Your task to perform on an android device: change the upload size in google photos Image 0: 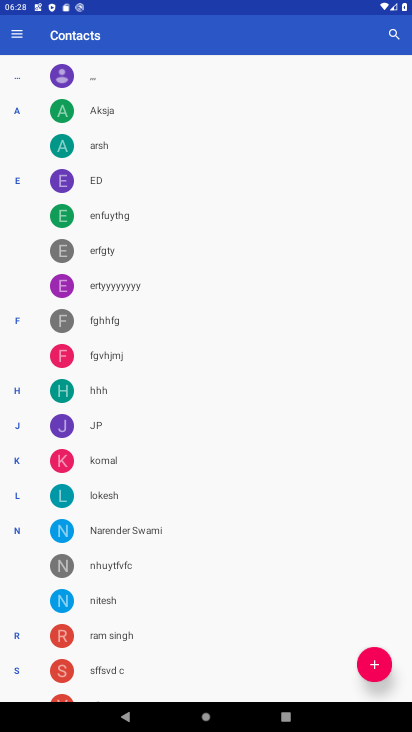
Step 0: press home button
Your task to perform on an android device: change the upload size in google photos Image 1: 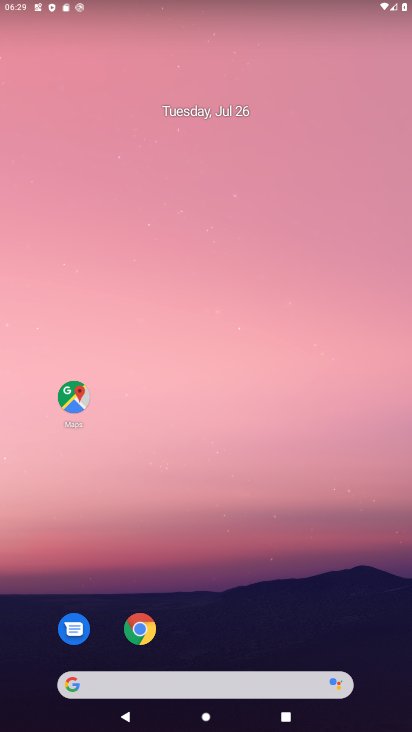
Step 1: drag from (180, 505) to (169, 78)
Your task to perform on an android device: change the upload size in google photos Image 2: 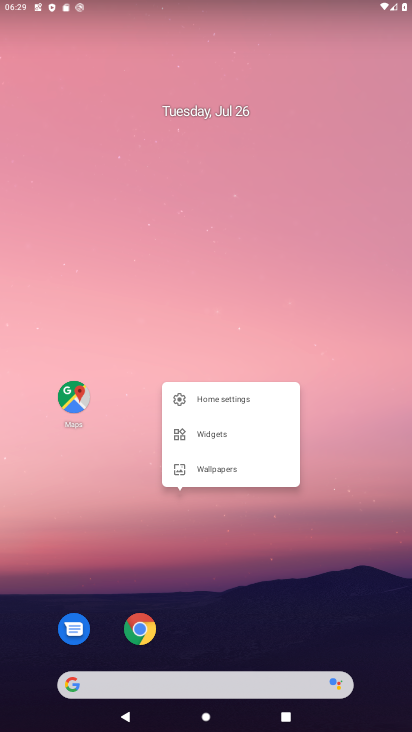
Step 2: click (253, 638)
Your task to perform on an android device: change the upload size in google photos Image 3: 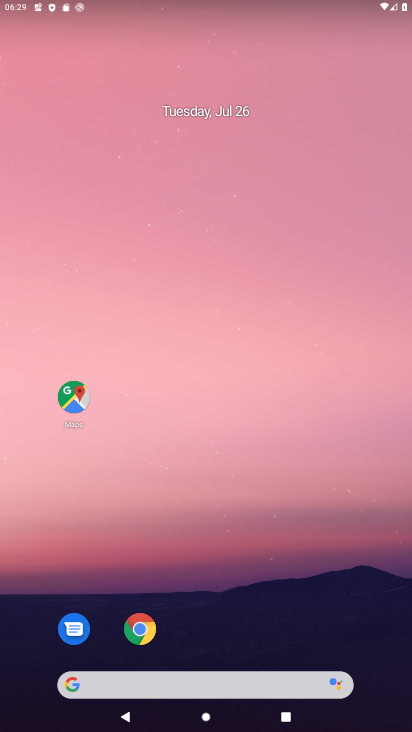
Step 3: drag from (252, 619) to (205, 150)
Your task to perform on an android device: change the upload size in google photos Image 4: 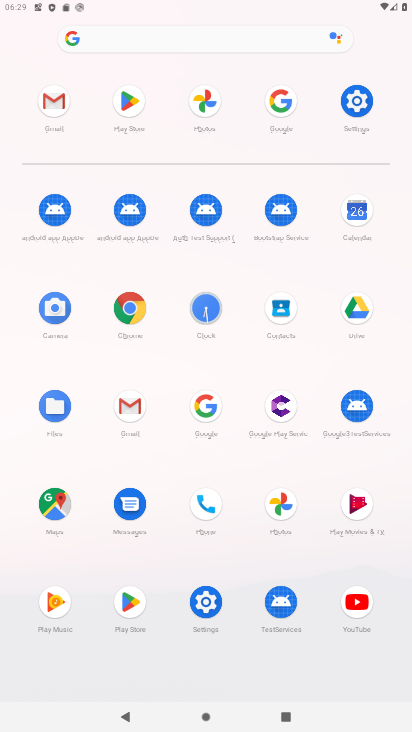
Step 4: click (276, 522)
Your task to perform on an android device: change the upload size in google photos Image 5: 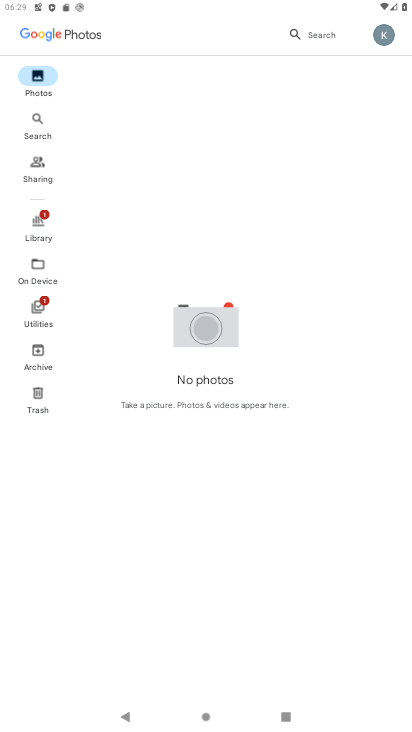
Step 5: click (387, 36)
Your task to perform on an android device: change the upload size in google photos Image 6: 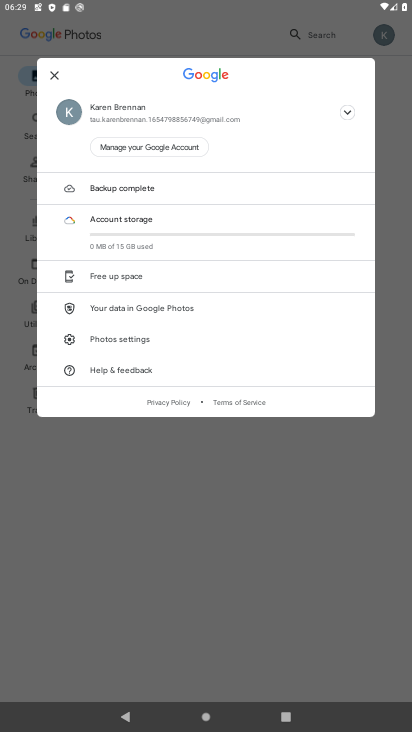
Step 6: click (107, 341)
Your task to perform on an android device: change the upload size in google photos Image 7: 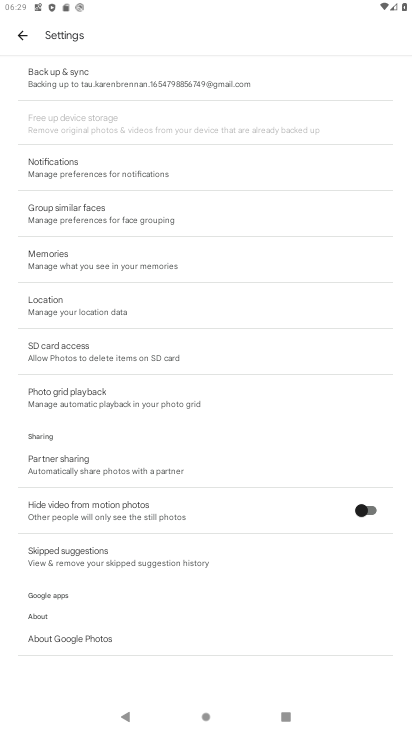
Step 7: click (116, 81)
Your task to perform on an android device: change the upload size in google photos Image 8: 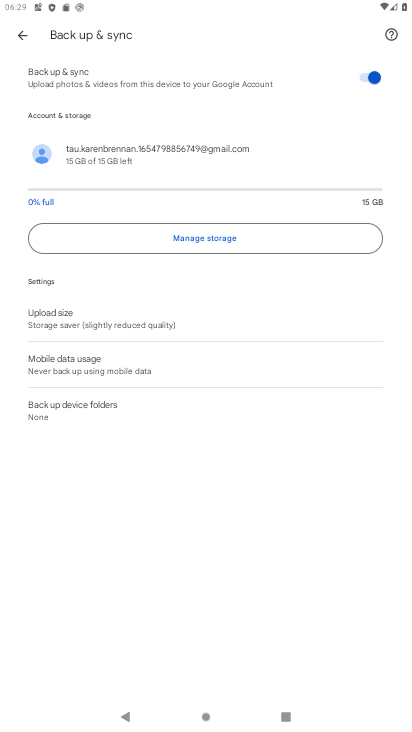
Step 8: click (55, 325)
Your task to perform on an android device: change the upload size in google photos Image 9: 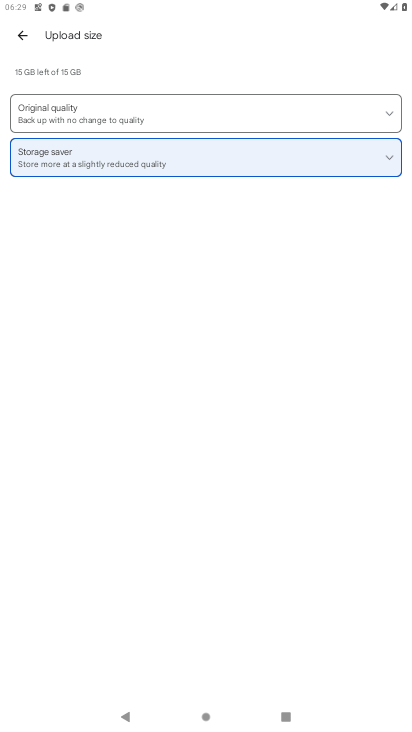
Step 9: click (151, 112)
Your task to perform on an android device: change the upload size in google photos Image 10: 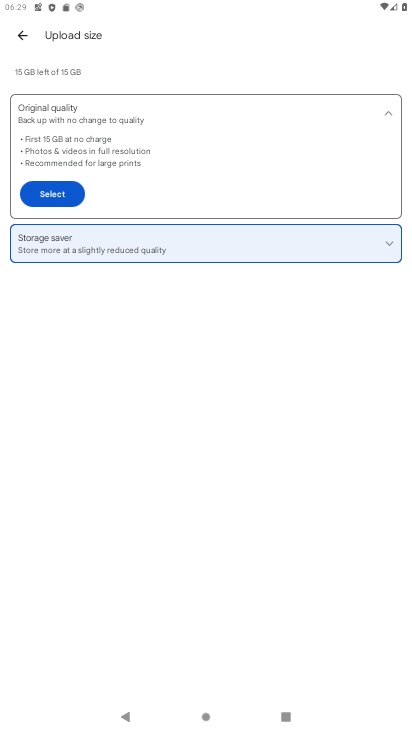
Step 10: click (35, 190)
Your task to perform on an android device: change the upload size in google photos Image 11: 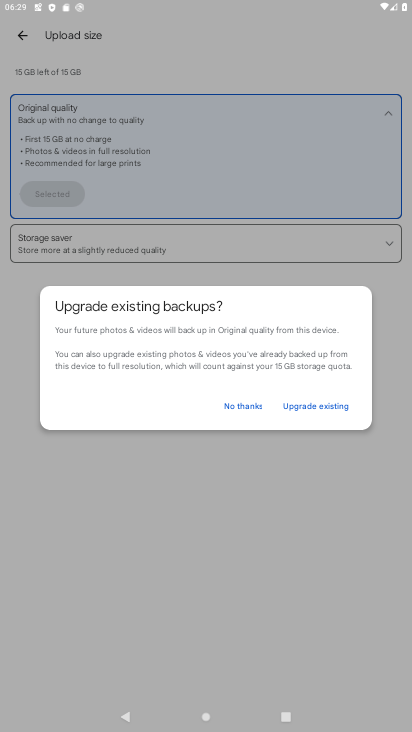
Step 11: click (250, 411)
Your task to perform on an android device: change the upload size in google photos Image 12: 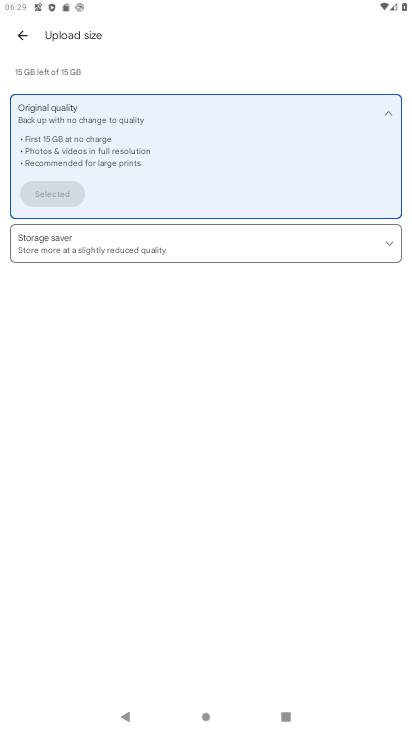
Step 12: task complete